Your task to perform on an android device: check data usage Image 0: 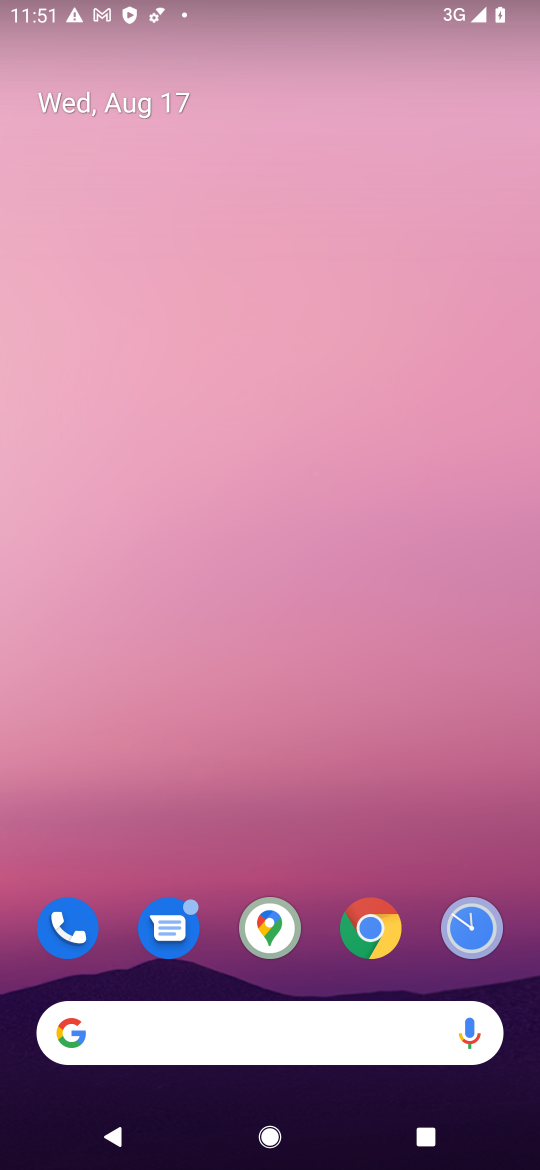
Step 0: drag from (258, 861) to (269, 293)
Your task to perform on an android device: check data usage Image 1: 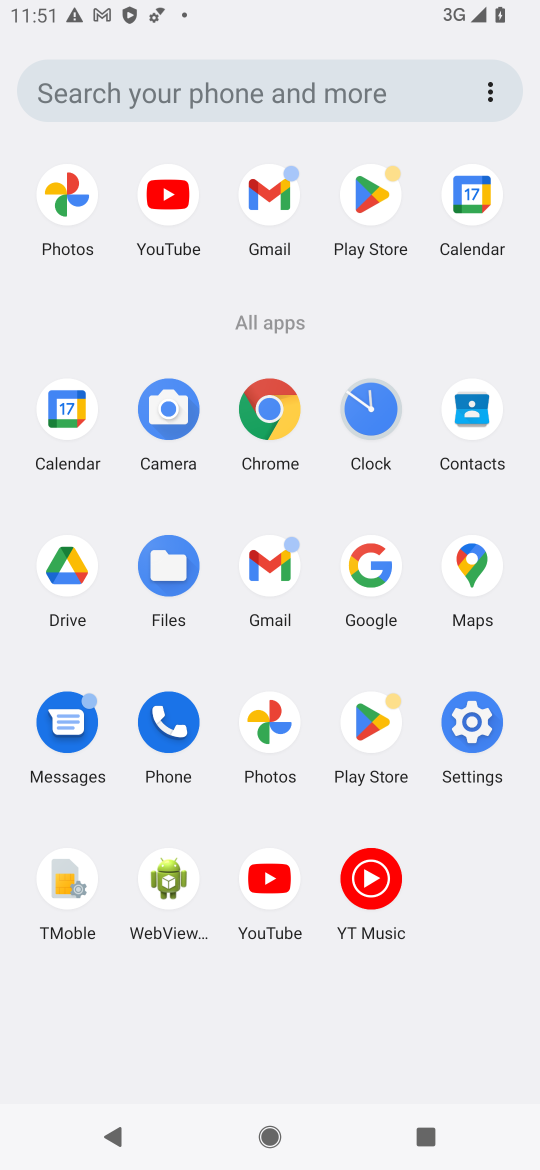
Step 1: click (477, 732)
Your task to perform on an android device: check data usage Image 2: 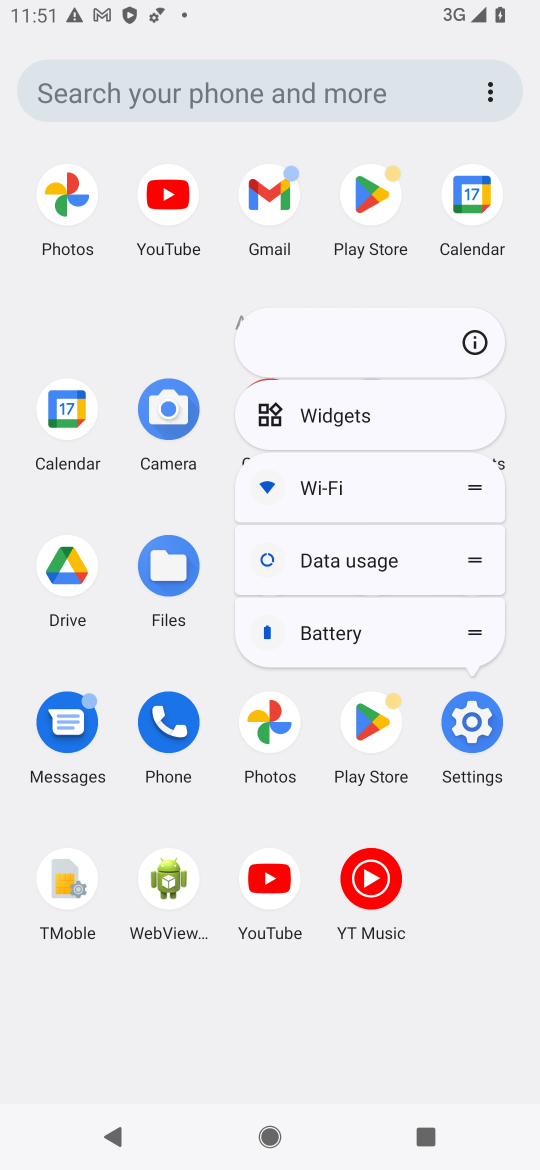
Step 2: click (477, 732)
Your task to perform on an android device: check data usage Image 3: 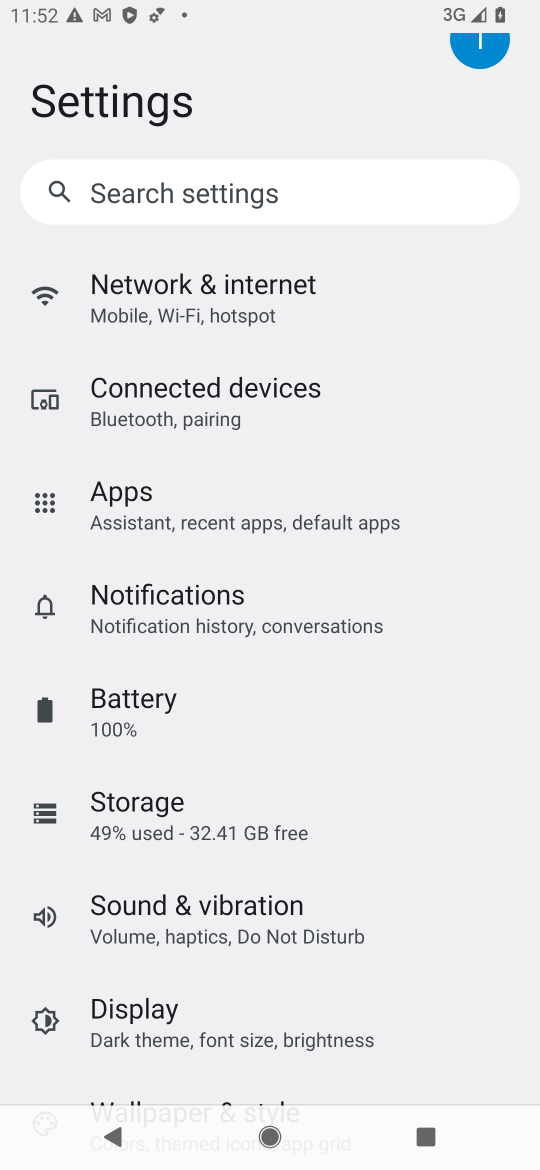
Step 3: click (214, 306)
Your task to perform on an android device: check data usage Image 4: 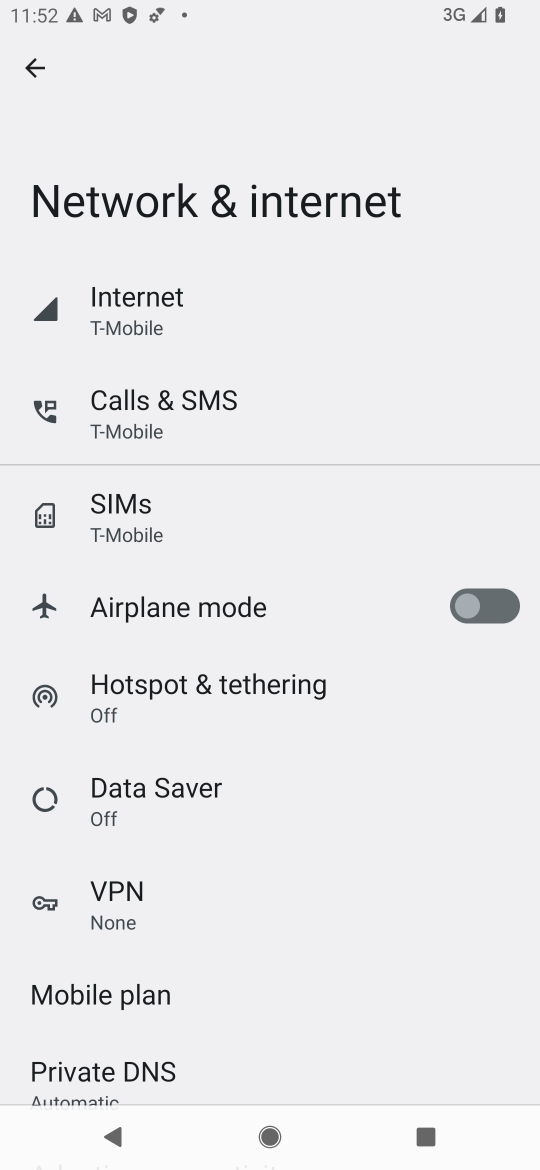
Step 4: click (231, 309)
Your task to perform on an android device: check data usage Image 5: 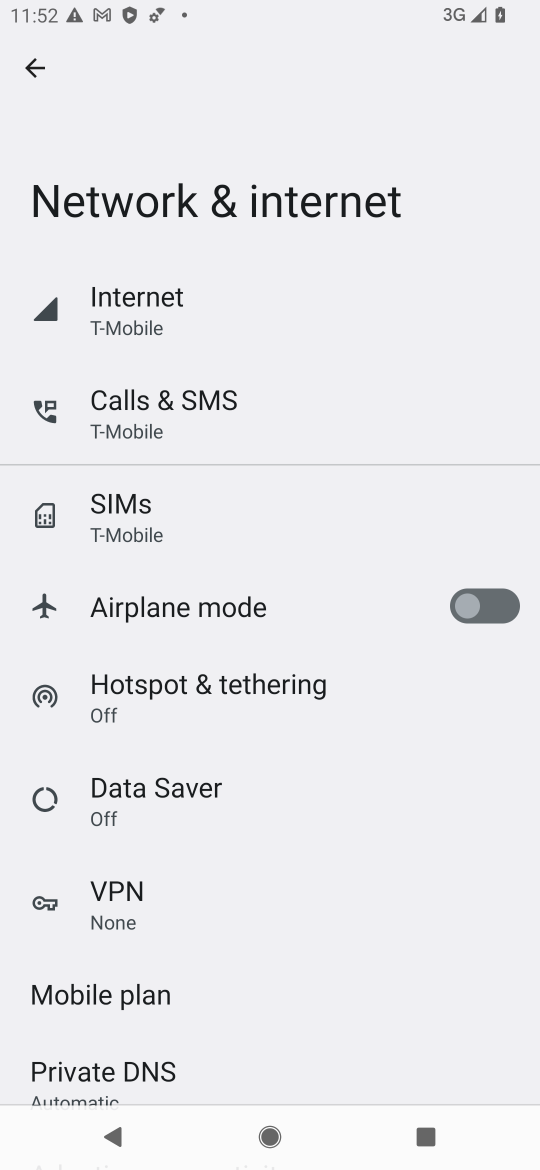
Step 5: click (189, 321)
Your task to perform on an android device: check data usage Image 6: 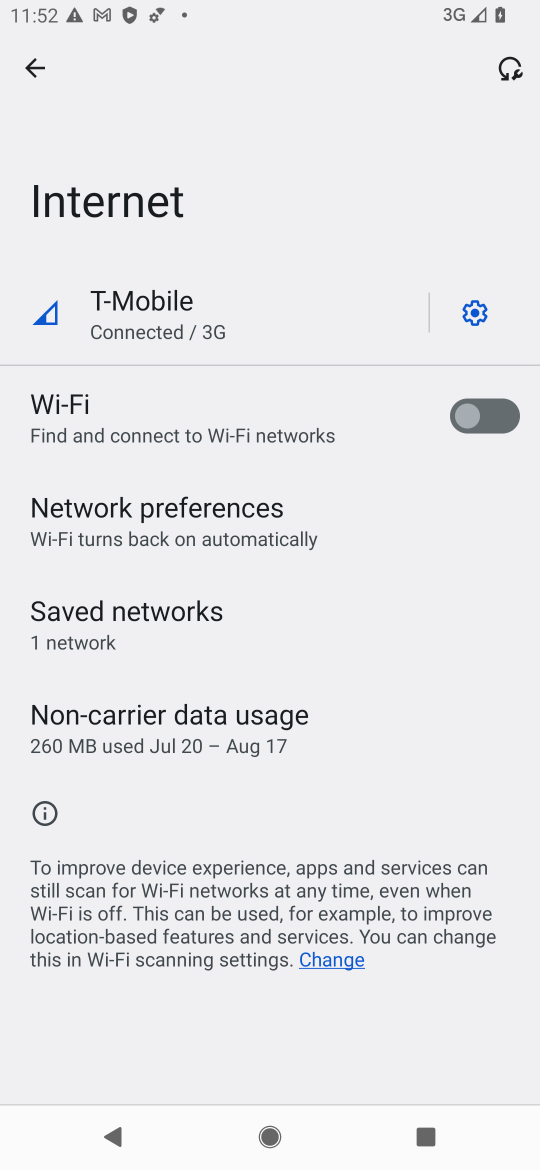
Step 6: task complete